Your task to perform on an android device: change the clock display to analog Image 0: 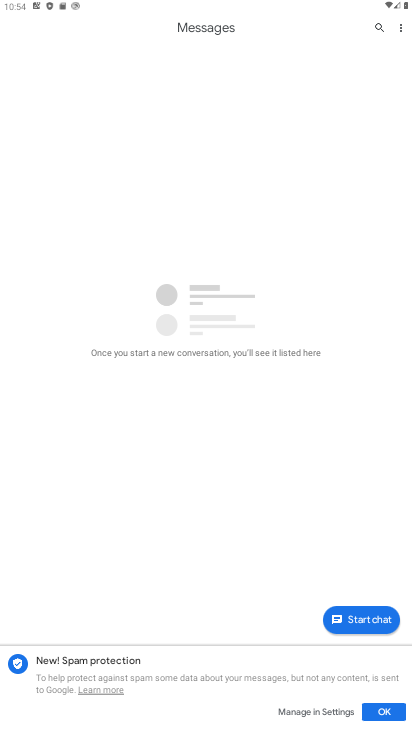
Step 0: press home button
Your task to perform on an android device: change the clock display to analog Image 1: 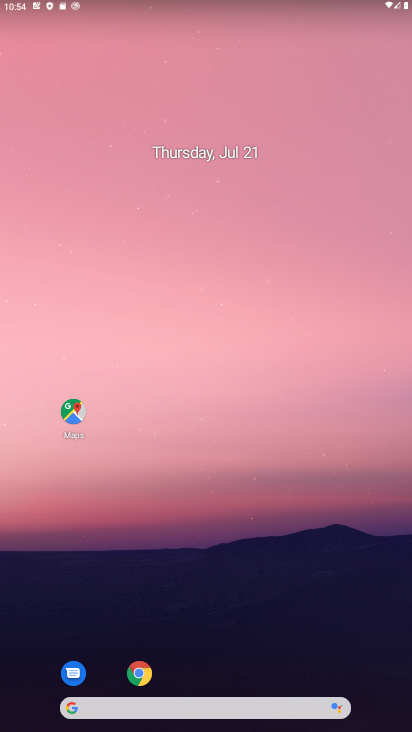
Step 1: drag from (208, 679) to (206, 148)
Your task to perform on an android device: change the clock display to analog Image 2: 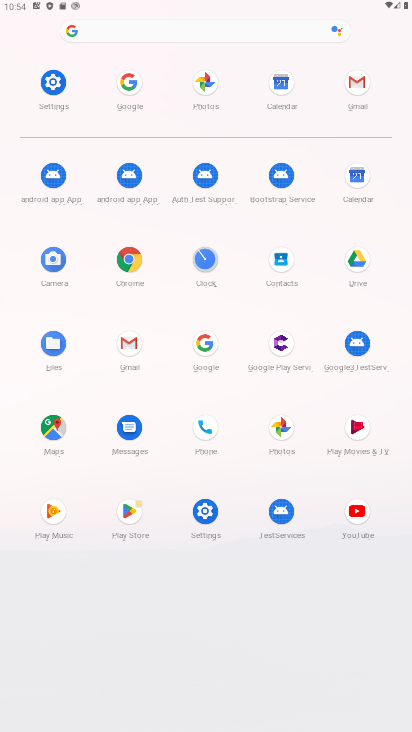
Step 2: click (210, 270)
Your task to perform on an android device: change the clock display to analog Image 3: 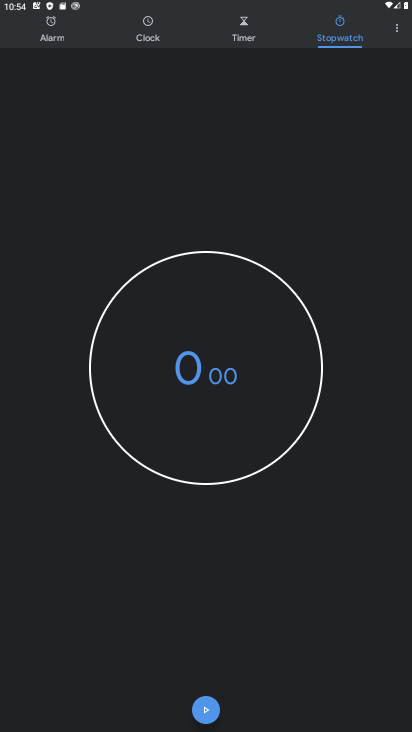
Step 3: click (396, 35)
Your task to perform on an android device: change the clock display to analog Image 4: 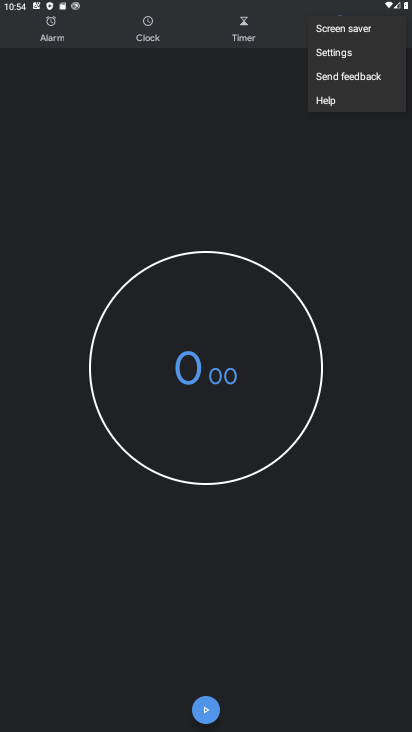
Step 4: click (358, 58)
Your task to perform on an android device: change the clock display to analog Image 5: 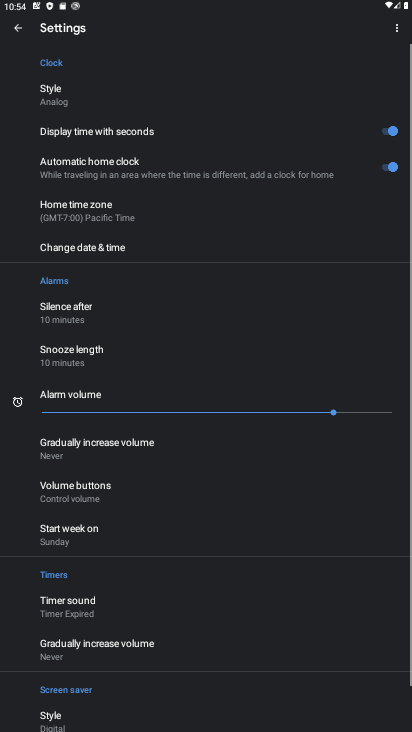
Step 5: click (81, 99)
Your task to perform on an android device: change the clock display to analog Image 6: 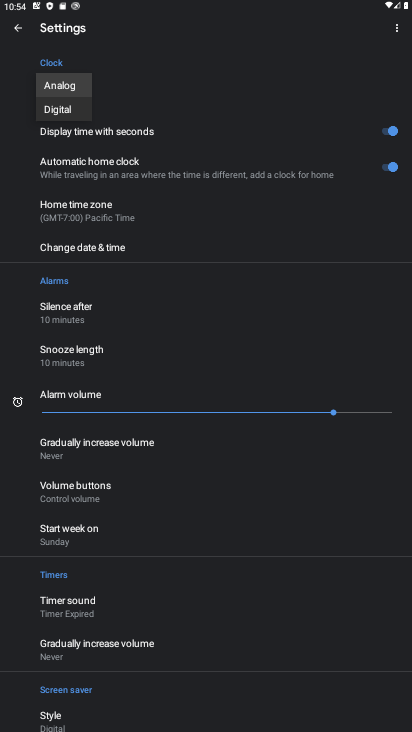
Step 6: task complete